Your task to perform on an android device: Turn off the flashlight Image 0: 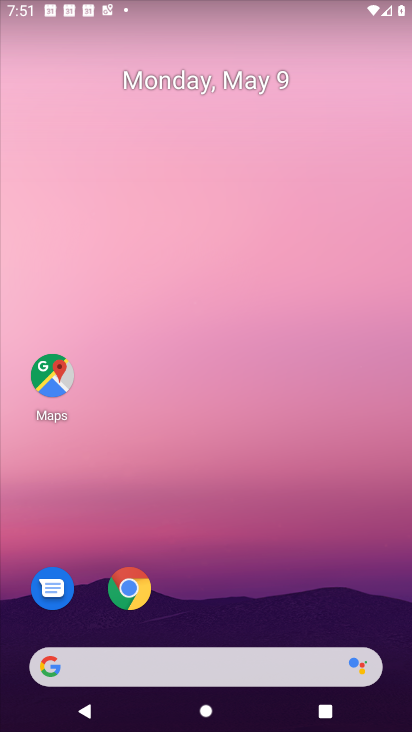
Step 0: press home button
Your task to perform on an android device: Turn off the flashlight Image 1: 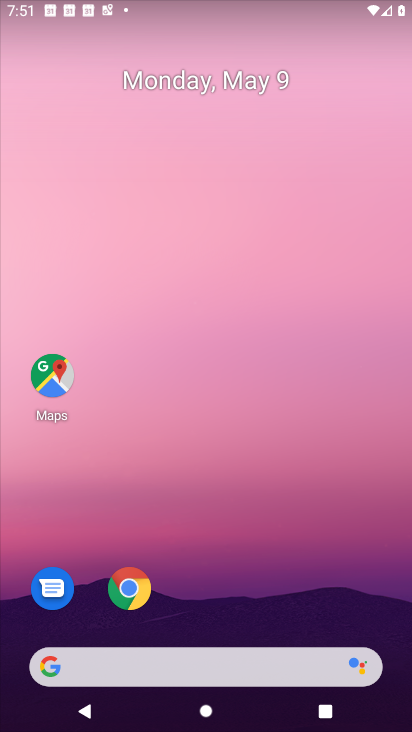
Step 1: task complete